Your task to perform on an android device: Open the web browser Image 0: 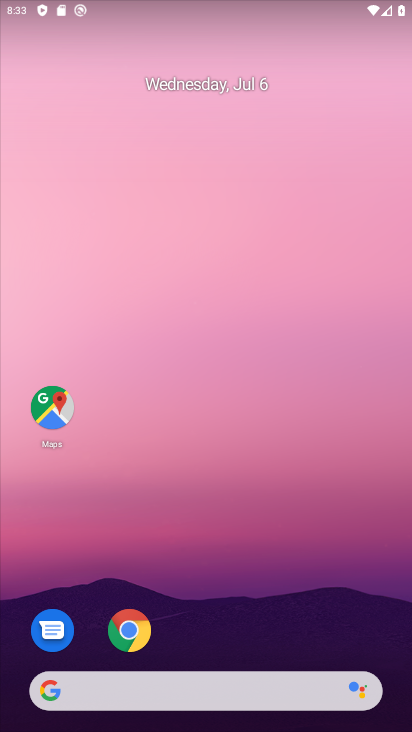
Step 0: click (128, 629)
Your task to perform on an android device: Open the web browser Image 1: 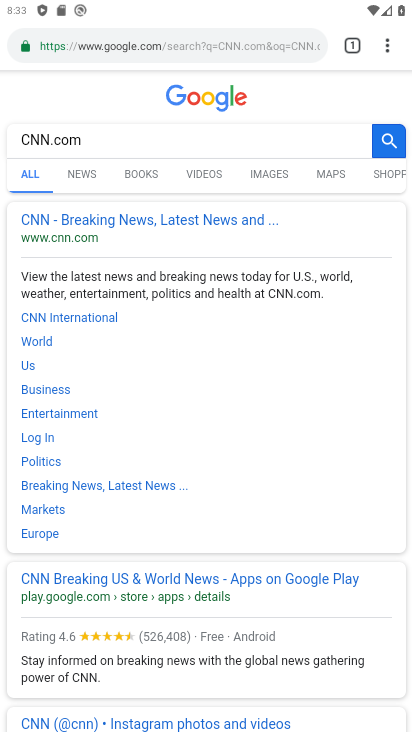
Step 1: task complete